Your task to perform on an android device: set the stopwatch Image 0: 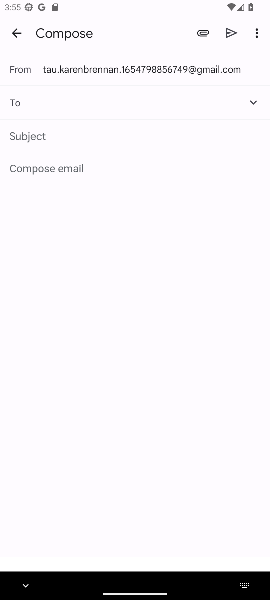
Step 0: press home button
Your task to perform on an android device: set the stopwatch Image 1: 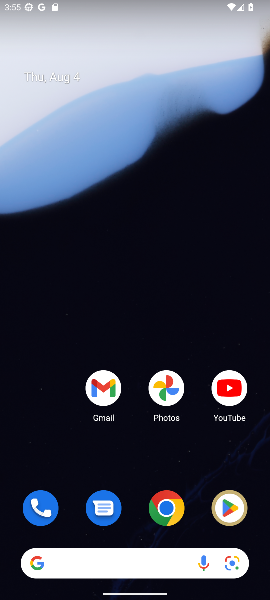
Step 1: drag from (128, 535) to (127, 212)
Your task to perform on an android device: set the stopwatch Image 2: 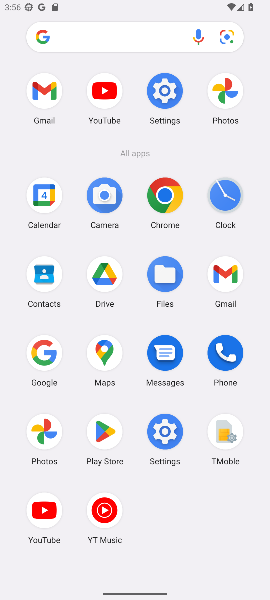
Step 2: click (226, 197)
Your task to perform on an android device: set the stopwatch Image 3: 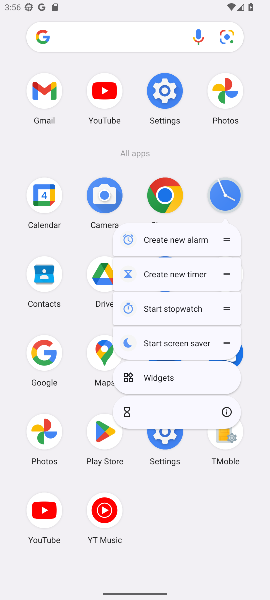
Step 3: click (226, 410)
Your task to perform on an android device: set the stopwatch Image 4: 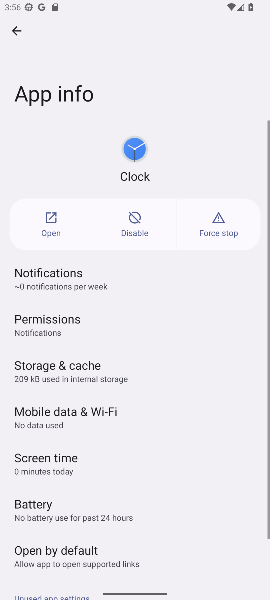
Step 4: click (46, 223)
Your task to perform on an android device: set the stopwatch Image 5: 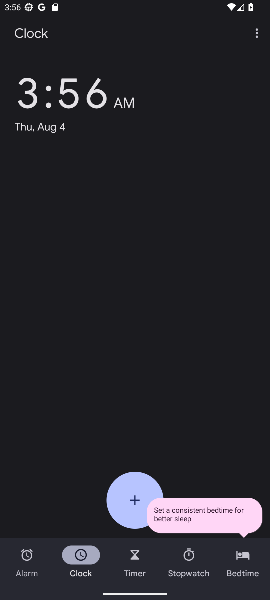
Step 5: click (197, 544)
Your task to perform on an android device: set the stopwatch Image 6: 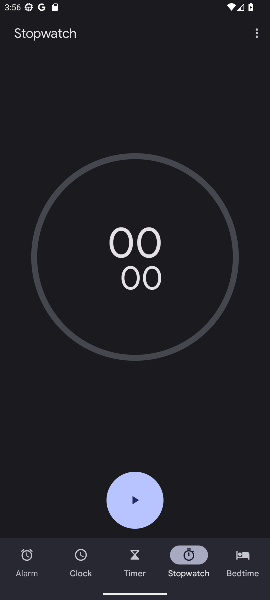
Step 6: click (139, 496)
Your task to perform on an android device: set the stopwatch Image 7: 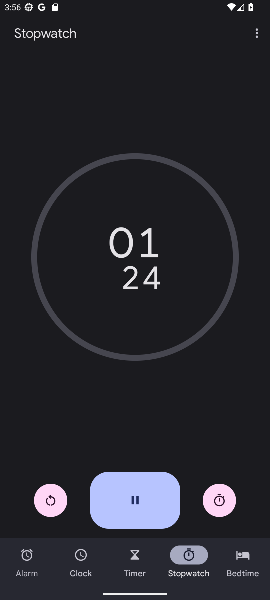
Step 7: task complete